Your task to perform on an android device: clear history in the chrome app Image 0: 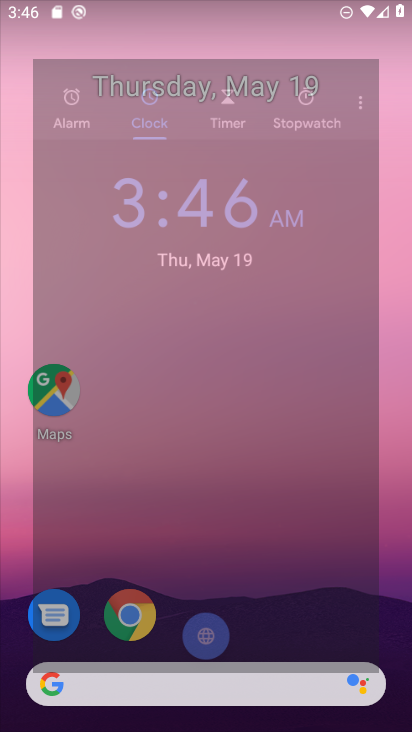
Step 0: drag from (278, 600) to (198, 242)
Your task to perform on an android device: clear history in the chrome app Image 1: 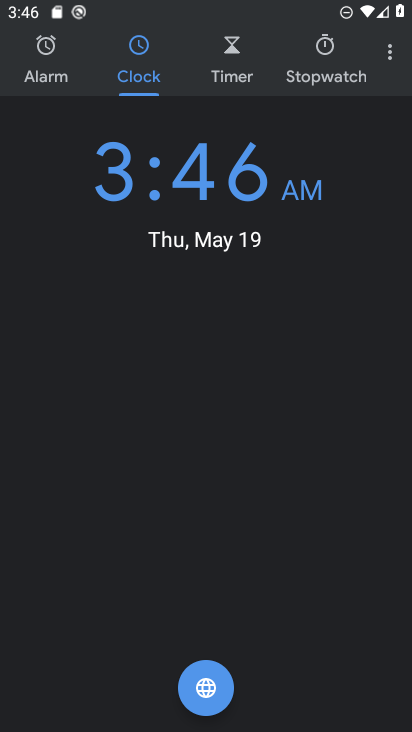
Step 1: press home button
Your task to perform on an android device: clear history in the chrome app Image 2: 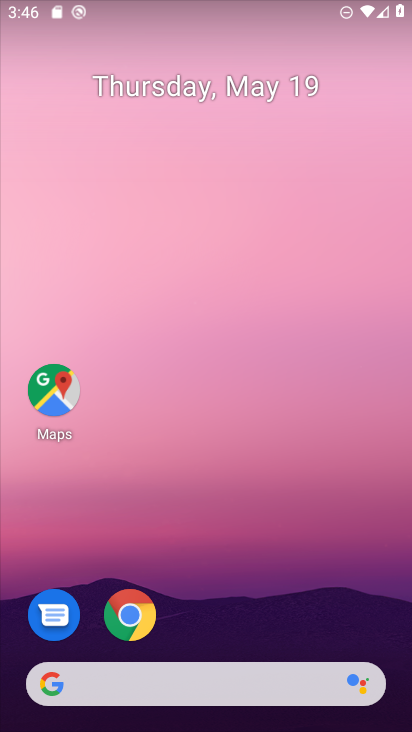
Step 2: click (146, 614)
Your task to perform on an android device: clear history in the chrome app Image 3: 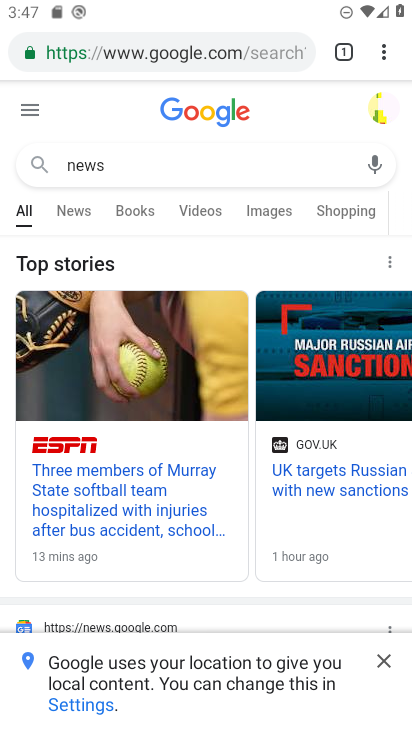
Step 3: click (384, 58)
Your task to perform on an android device: clear history in the chrome app Image 4: 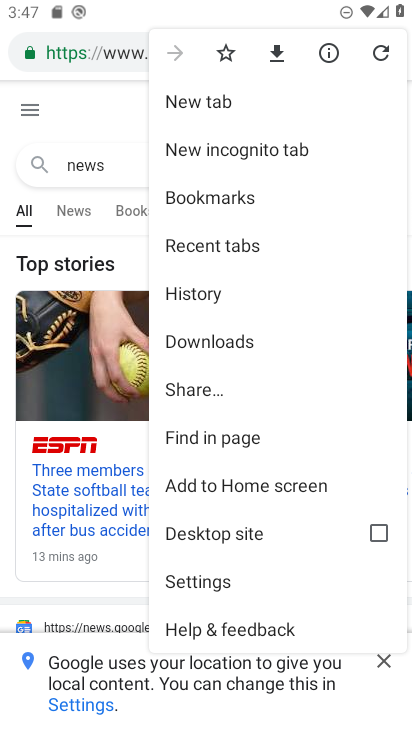
Step 4: click (271, 303)
Your task to perform on an android device: clear history in the chrome app Image 5: 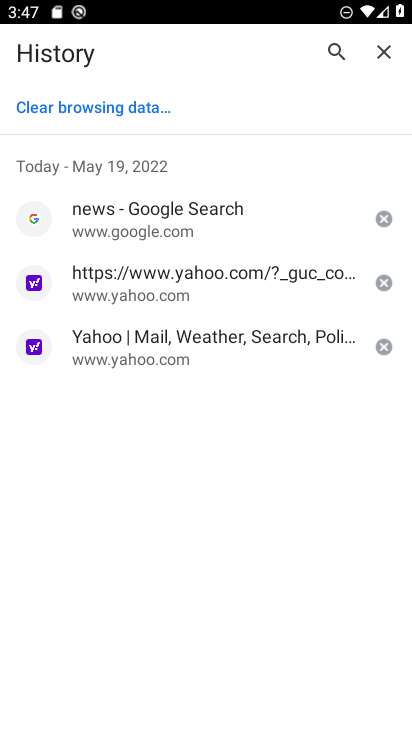
Step 5: click (121, 113)
Your task to perform on an android device: clear history in the chrome app Image 6: 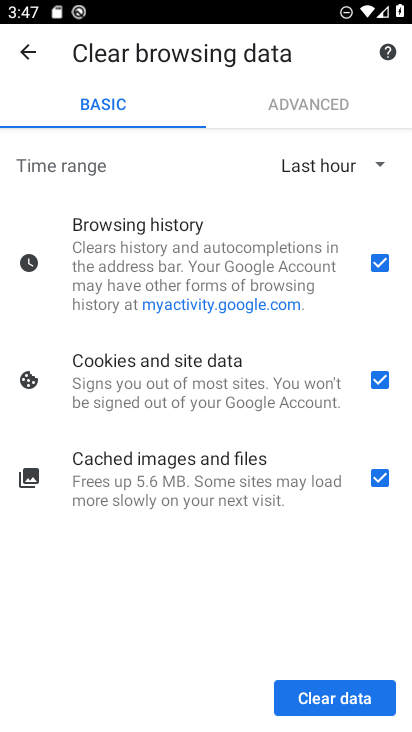
Step 6: click (380, 484)
Your task to perform on an android device: clear history in the chrome app Image 7: 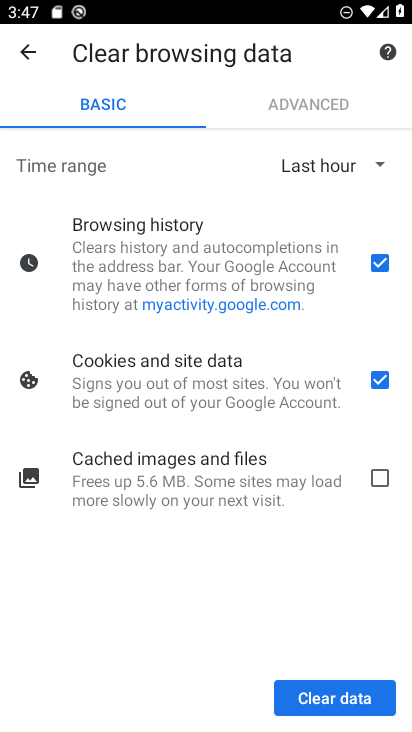
Step 7: click (383, 251)
Your task to perform on an android device: clear history in the chrome app Image 8: 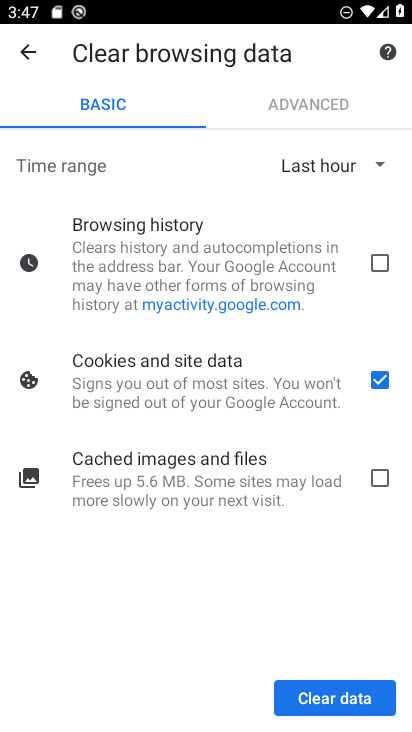
Step 8: click (385, 375)
Your task to perform on an android device: clear history in the chrome app Image 9: 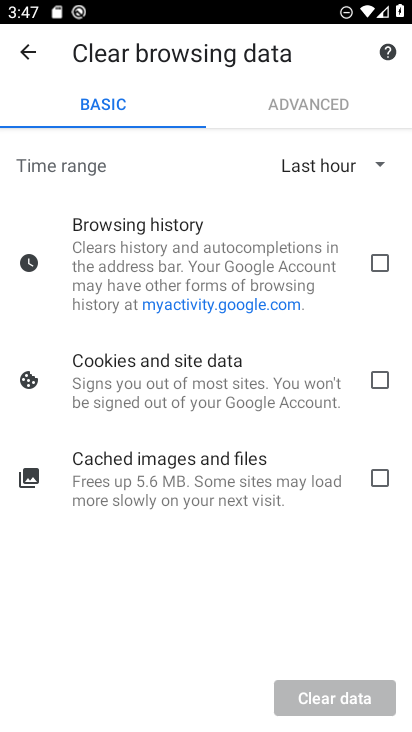
Step 9: click (381, 265)
Your task to perform on an android device: clear history in the chrome app Image 10: 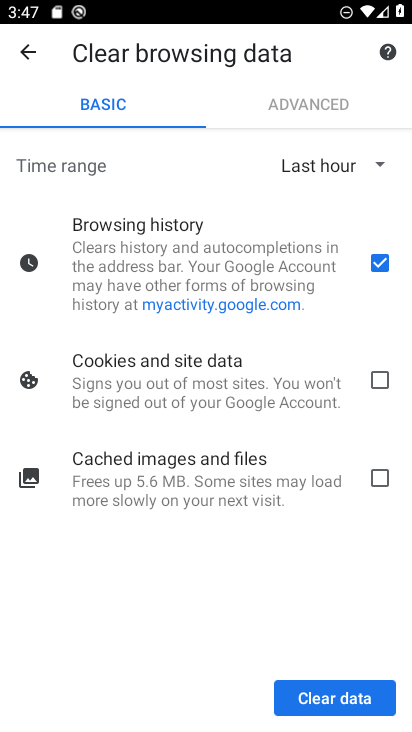
Step 10: click (352, 691)
Your task to perform on an android device: clear history in the chrome app Image 11: 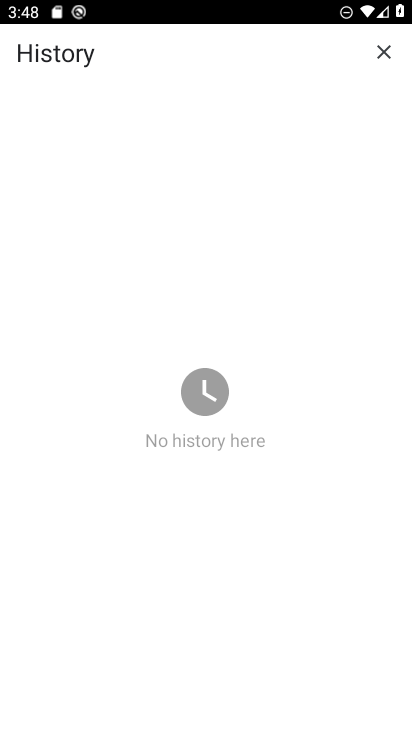
Step 11: task complete